Your task to perform on an android device: Open Google Maps Image 0: 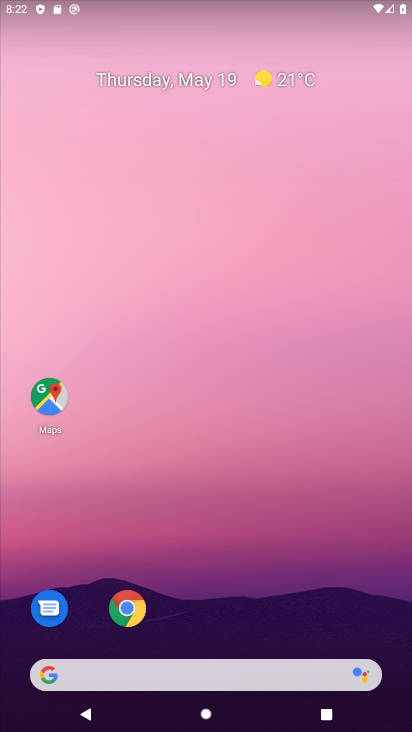
Step 0: click (44, 400)
Your task to perform on an android device: Open Google Maps Image 1: 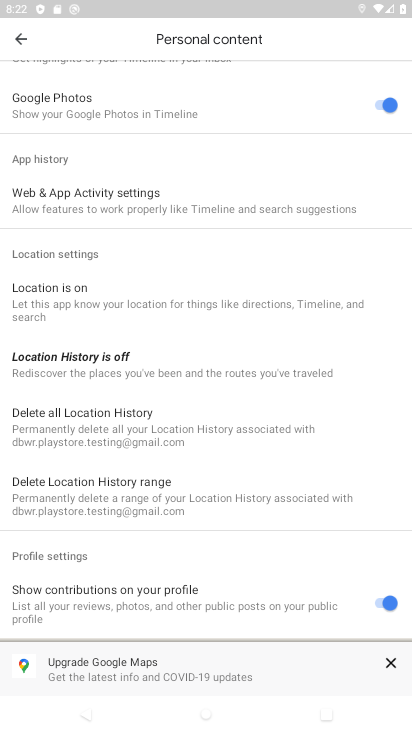
Step 1: click (19, 36)
Your task to perform on an android device: Open Google Maps Image 2: 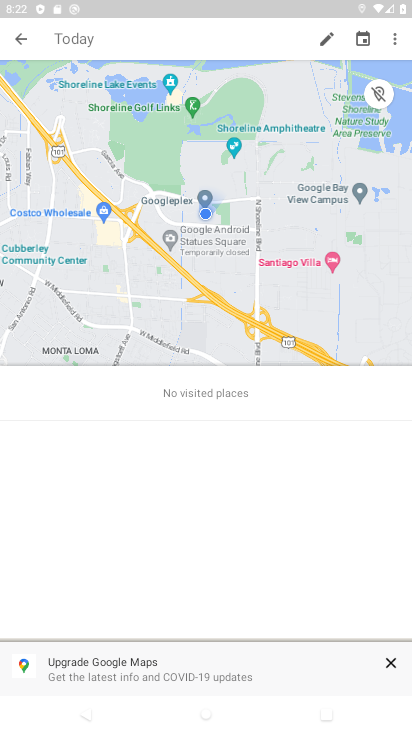
Step 2: task complete